Your task to perform on an android device: What's on my calendar tomorrow? Image 0: 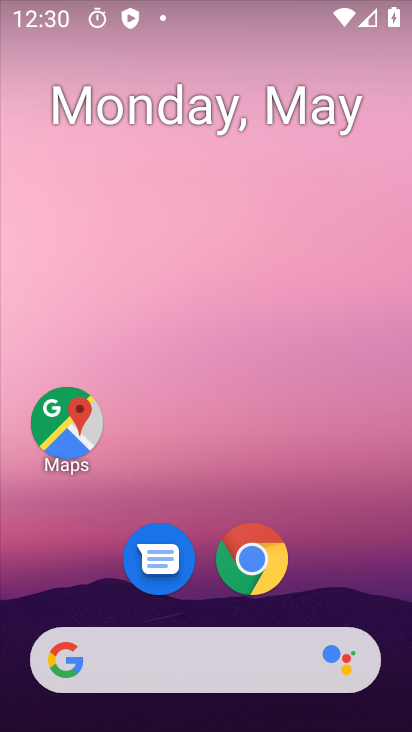
Step 0: drag from (243, 620) to (251, 101)
Your task to perform on an android device: What's on my calendar tomorrow? Image 1: 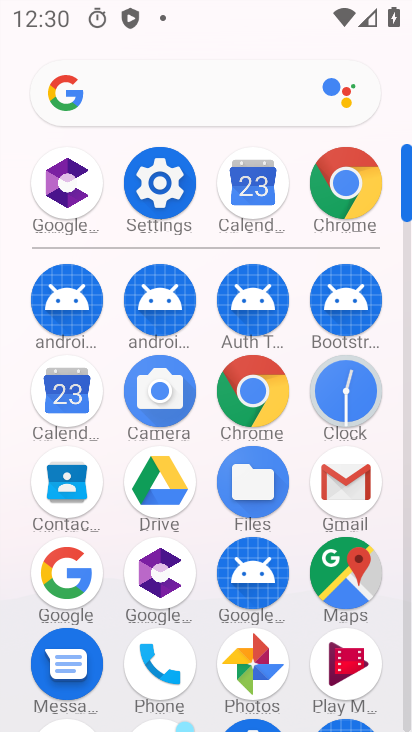
Step 1: click (78, 373)
Your task to perform on an android device: What's on my calendar tomorrow? Image 2: 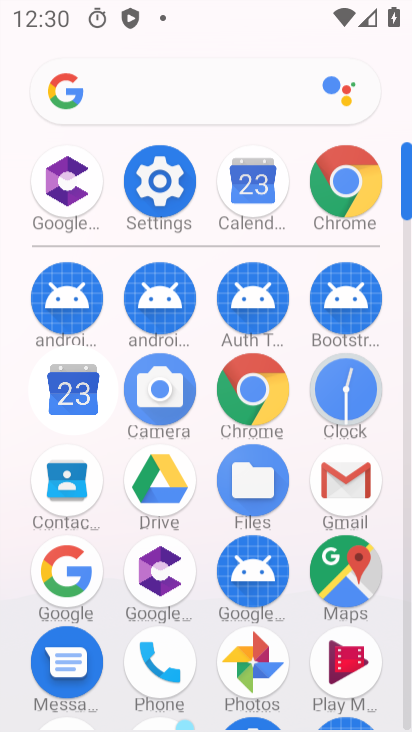
Step 2: click (82, 401)
Your task to perform on an android device: What's on my calendar tomorrow? Image 3: 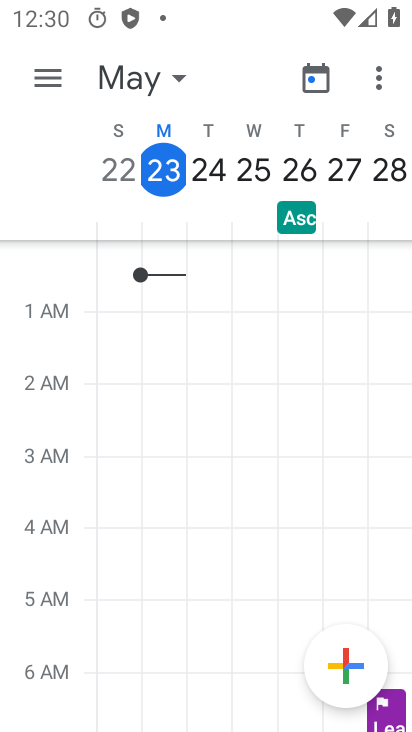
Step 3: click (217, 161)
Your task to perform on an android device: What's on my calendar tomorrow? Image 4: 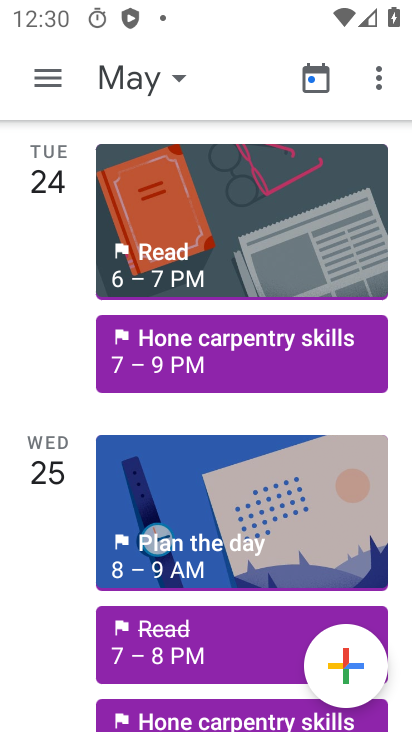
Step 4: task complete